Your task to perform on an android device: toggle pop-ups in chrome Image 0: 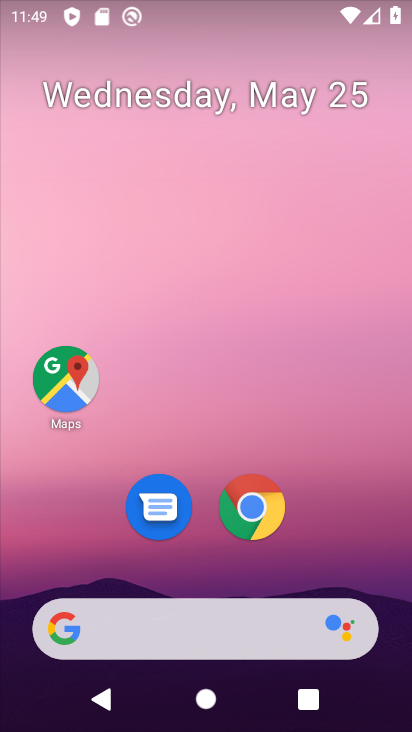
Step 0: click (233, 514)
Your task to perform on an android device: toggle pop-ups in chrome Image 1: 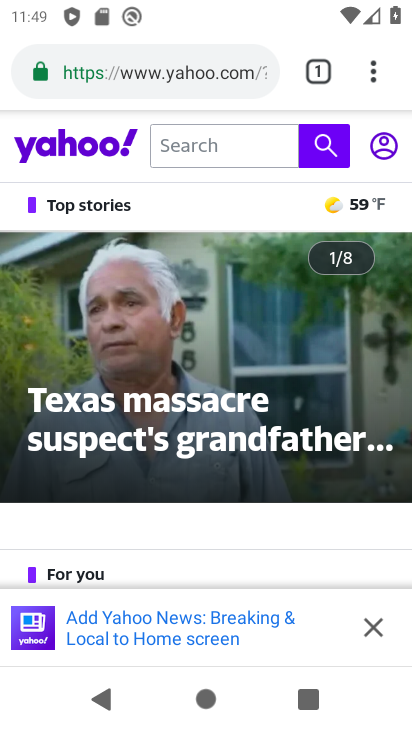
Step 1: drag from (374, 74) to (163, 500)
Your task to perform on an android device: toggle pop-ups in chrome Image 2: 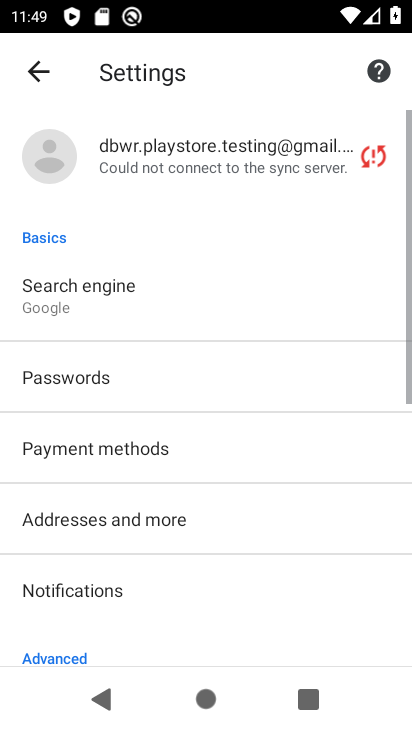
Step 2: drag from (205, 554) to (273, 272)
Your task to perform on an android device: toggle pop-ups in chrome Image 3: 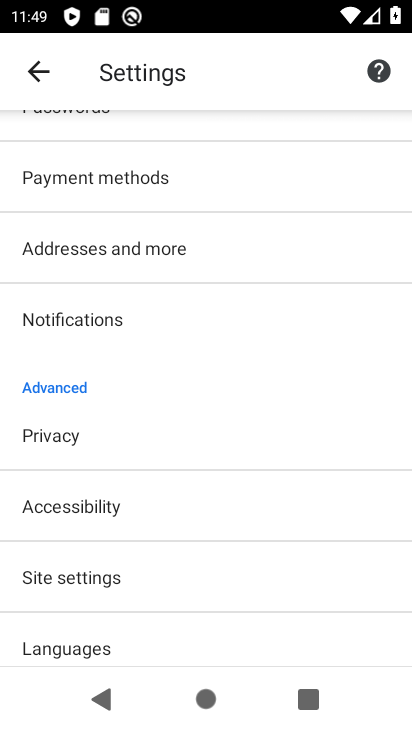
Step 3: click (130, 560)
Your task to perform on an android device: toggle pop-ups in chrome Image 4: 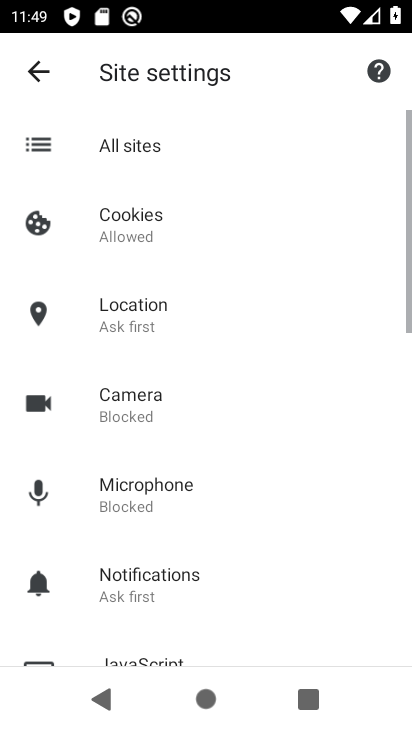
Step 4: drag from (256, 591) to (322, 331)
Your task to perform on an android device: toggle pop-ups in chrome Image 5: 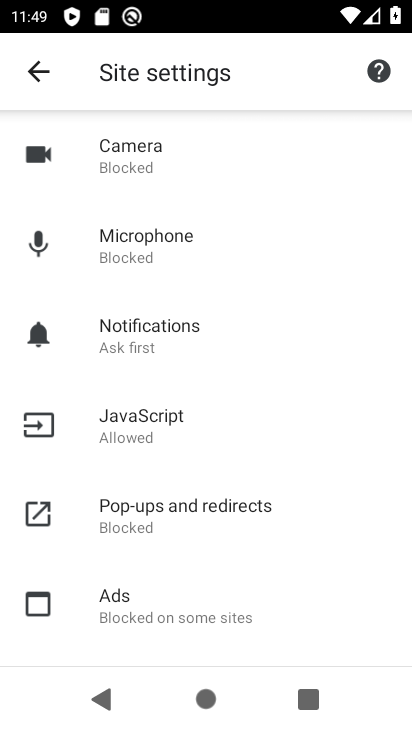
Step 5: click (242, 490)
Your task to perform on an android device: toggle pop-ups in chrome Image 6: 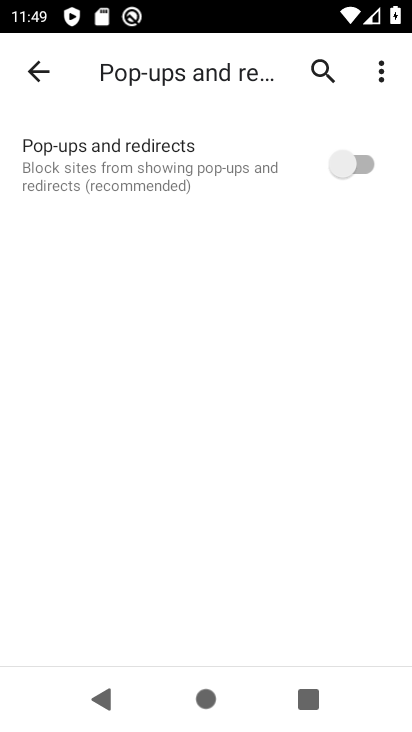
Step 6: click (369, 164)
Your task to perform on an android device: toggle pop-ups in chrome Image 7: 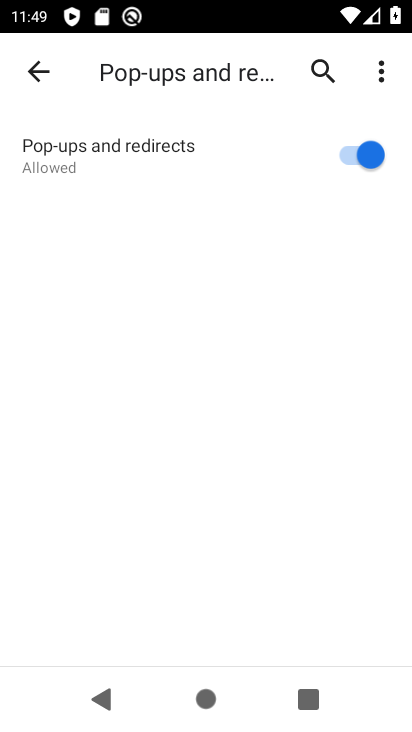
Step 7: task complete